Your task to perform on an android device: check out phone information Image 0: 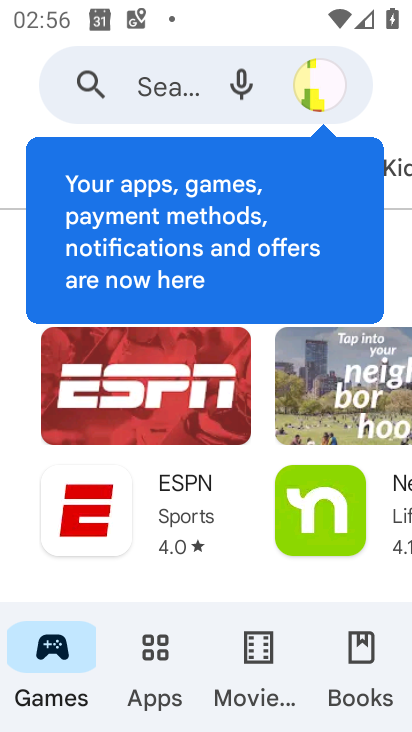
Step 0: press home button
Your task to perform on an android device: check out phone information Image 1: 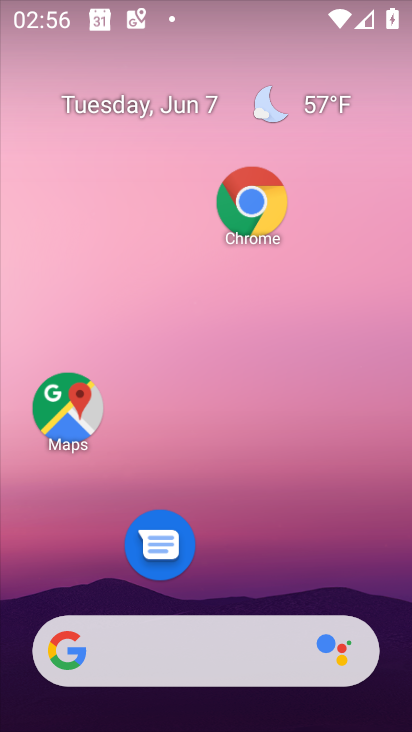
Step 1: drag from (288, 589) to (316, 256)
Your task to perform on an android device: check out phone information Image 2: 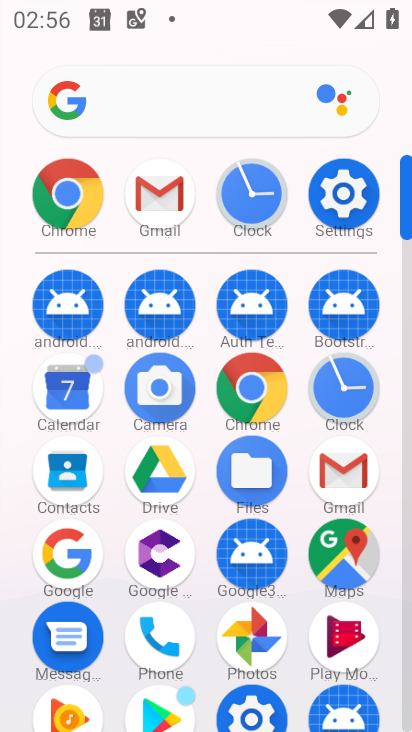
Step 2: click (337, 198)
Your task to perform on an android device: check out phone information Image 3: 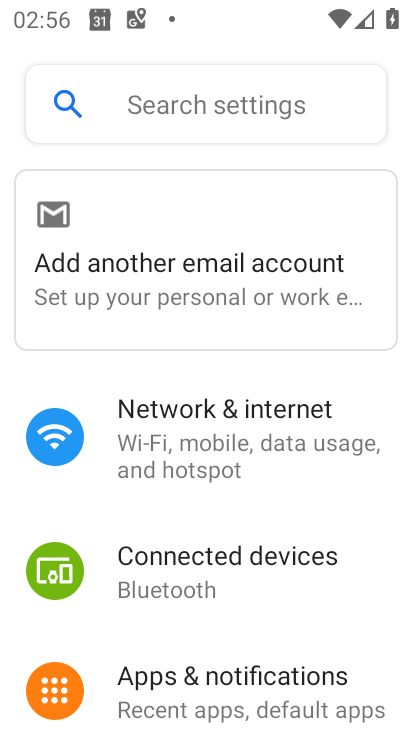
Step 3: drag from (302, 666) to (266, 318)
Your task to perform on an android device: check out phone information Image 4: 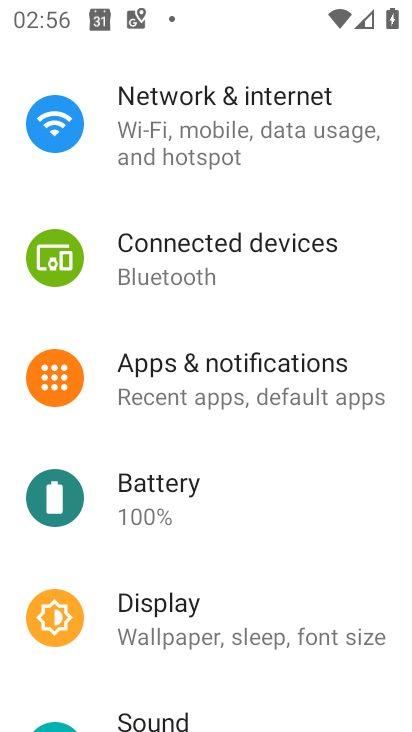
Step 4: drag from (245, 722) to (275, 267)
Your task to perform on an android device: check out phone information Image 5: 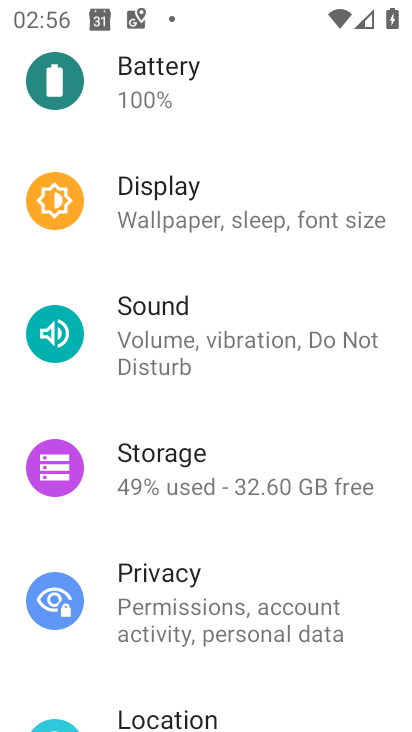
Step 5: drag from (228, 571) to (221, 211)
Your task to perform on an android device: check out phone information Image 6: 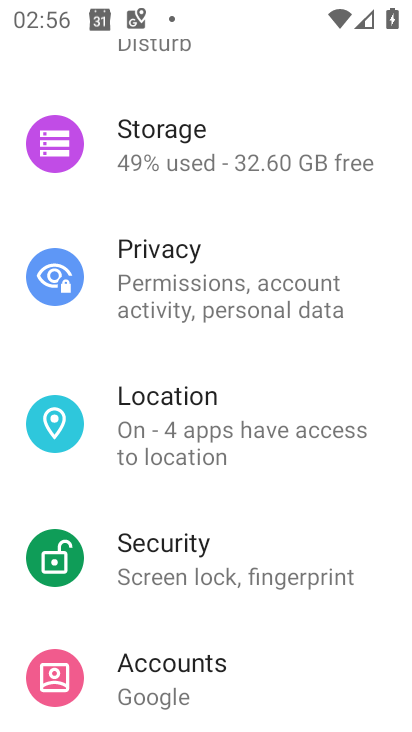
Step 6: drag from (258, 650) to (266, 231)
Your task to perform on an android device: check out phone information Image 7: 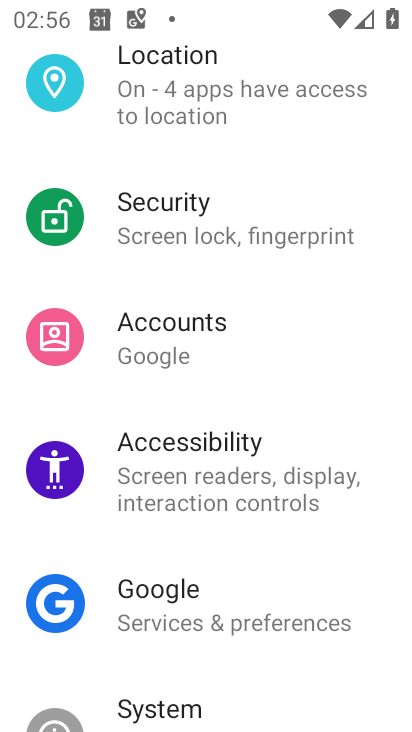
Step 7: drag from (261, 661) to (263, 181)
Your task to perform on an android device: check out phone information Image 8: 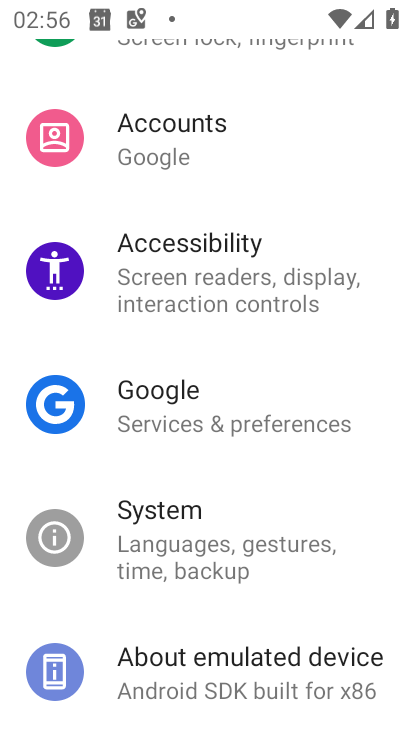
Step 8: click (234, 688)
Your task to perform on an android device: check out phone information Image 9: 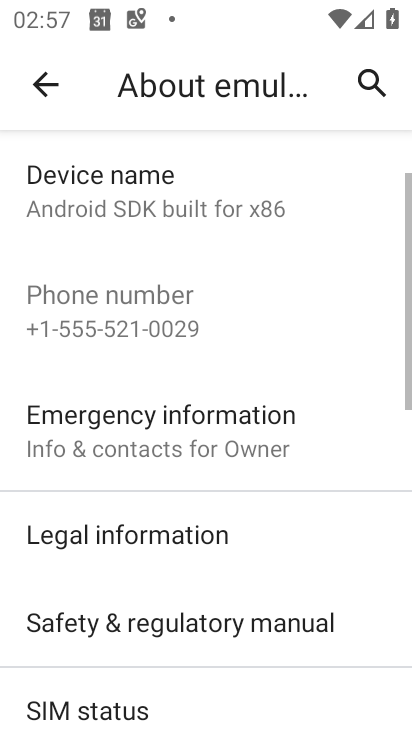
Step 9: task complete